Your task to perform on an android device: Show me productivity apps on the Play Store Image 0: 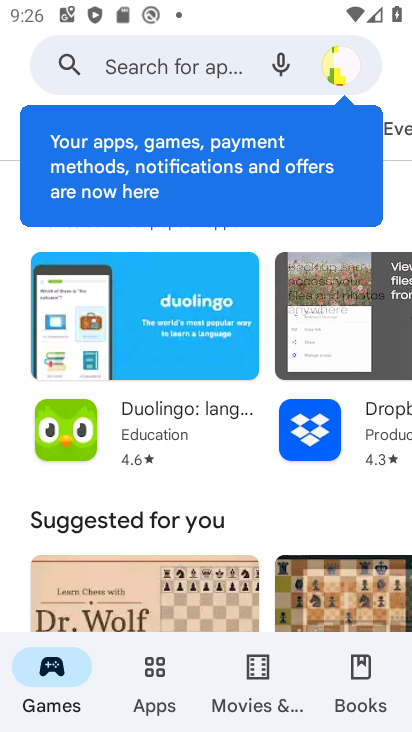
Step 0: press home button
Your task to perform on an android device: Show me productivity apps on the Play Store Image 1: 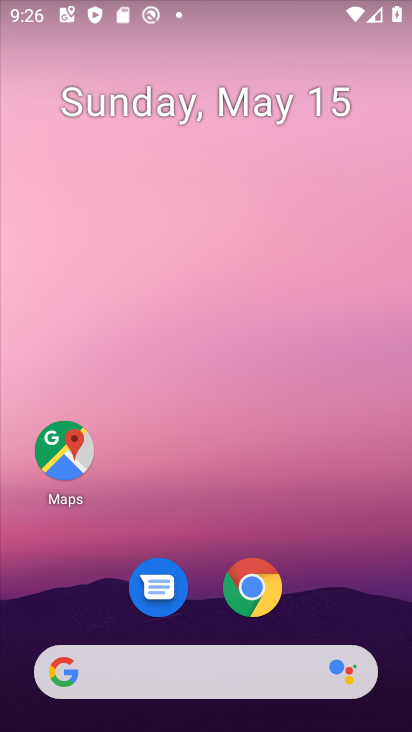
Step 1: drag from (391, 634) to (297, 58)
Your task to perform on an android device: Show me productivity apps on the Play Store Image 2: 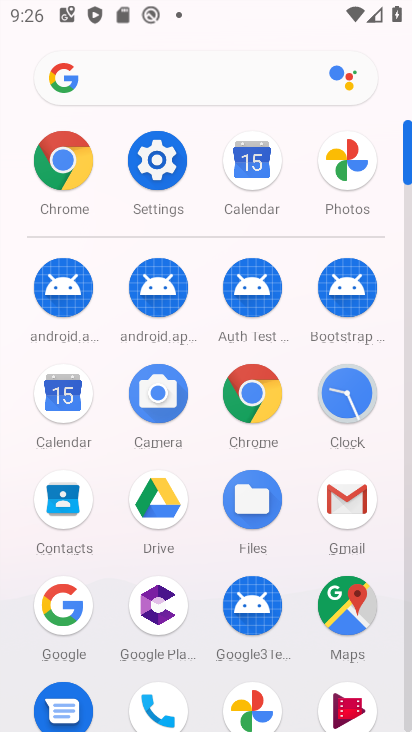
Step 2: drag from (219, 677) to (209, 192)
Your task to perform on an android device: Show me productivity apps on the Play Store Image 3: 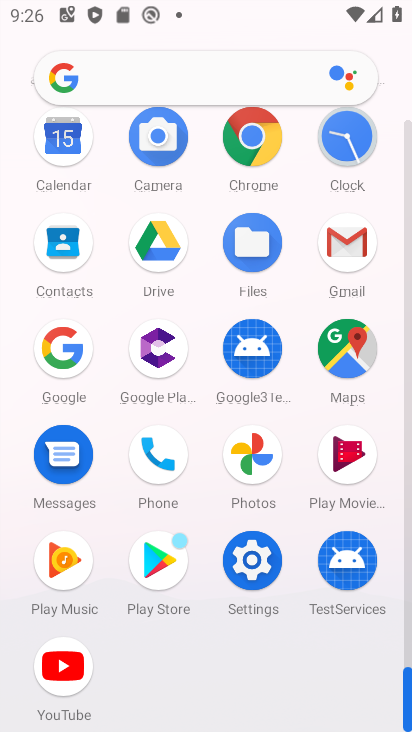
Step 3: click (174, 578)
Your task to perform on an android device: Show me productivity apps on the Play Store Image 4: 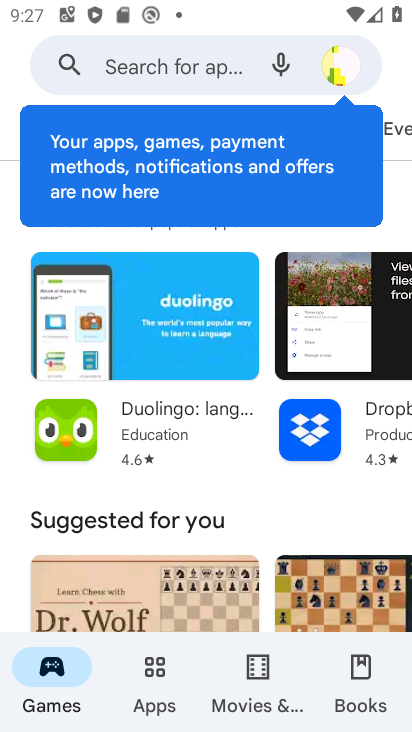
Step 4: task complete